Your task to perform on an android device: read, delete, or share a saved page in the chrome app Image 0: 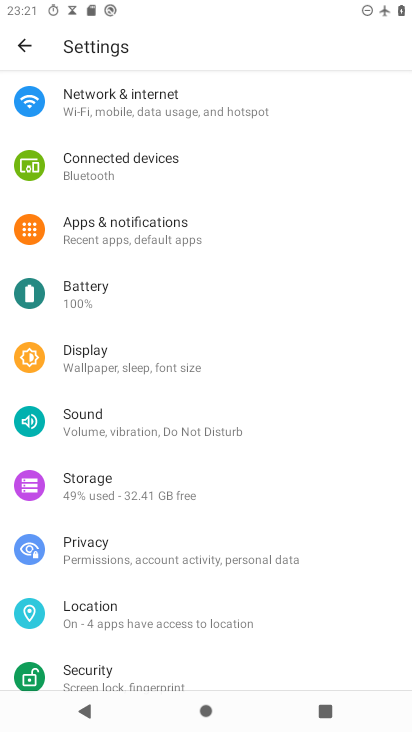
Step 0: press back button
Your task to perform on an android device: read, delete, or share a saved page in the chrome app Image 1: 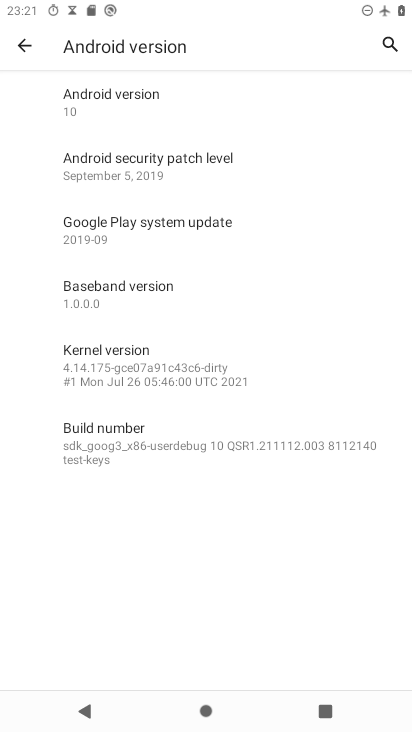
Step 1: press back button
Your task to perform on an android device: read, delete, or share a saved page in the chrome app Image 2: 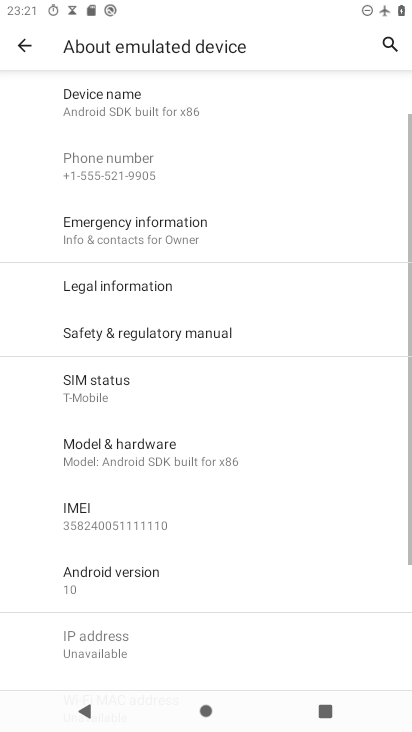
Step 2: press back button
Your task to perform on an android device: read, delete, or share a saved page in the chrome app Image 3: 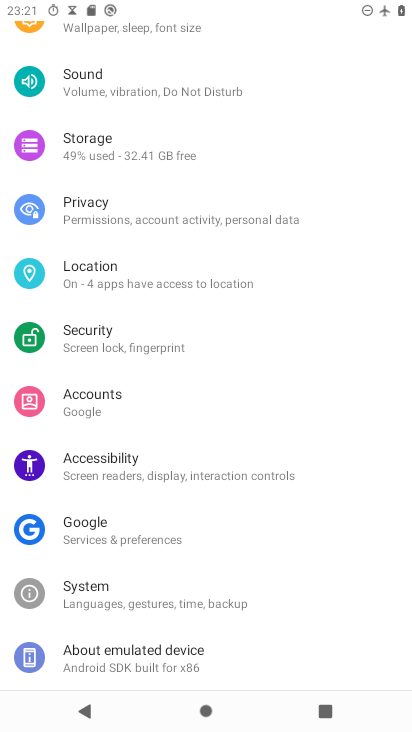
Step 3: press back button
Your task to perform on an android device: read, delete, or share a saved page in the chrome app Image 4: 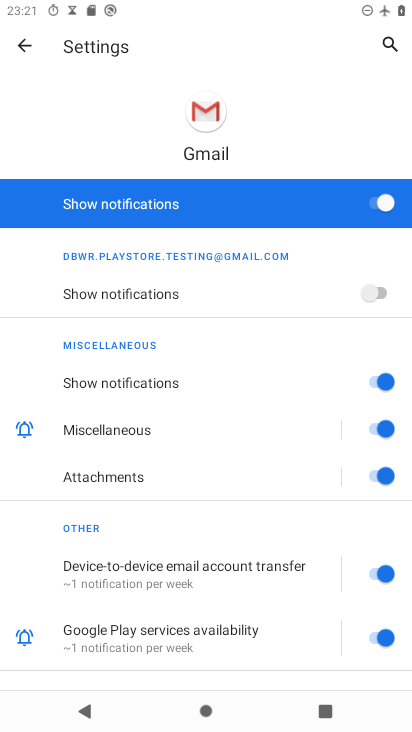
Step 4: press back button
Your task to perform on an android device: read, delete, or share a saved page in the chrome app Image 5: 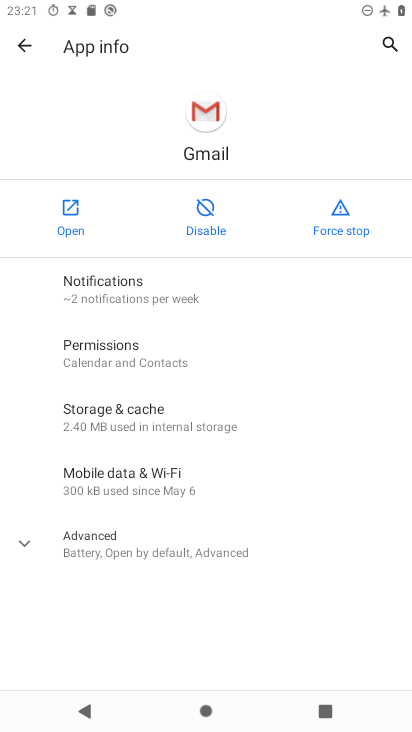
Step 5: press home button
Your task to perform on an android device: read, delete, or share a saved page in the chrome app Image 6: 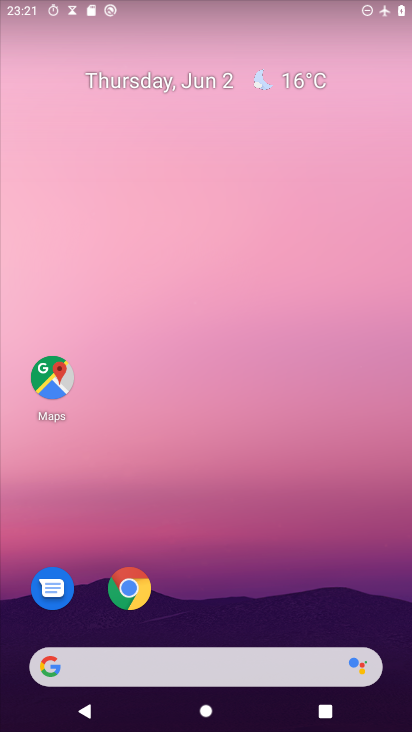
Step 6: click (127, 586)
Your task to perform on an android device: read, delete, or share a saved page in the chrome app Image 7: 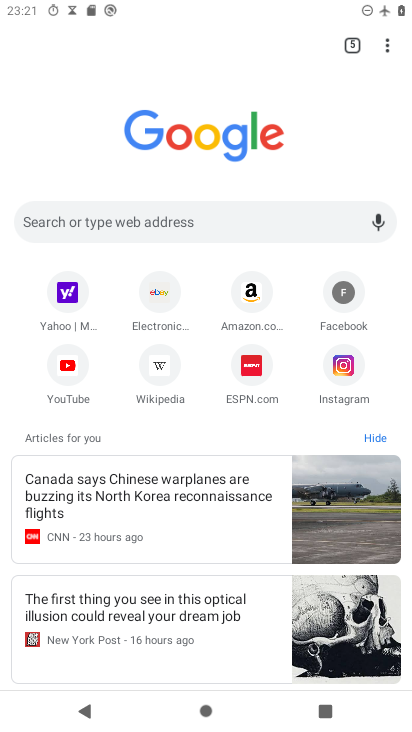
Step 7: task complete